Your task to perform on an android device: Open Chrome and go to settings Image 0: 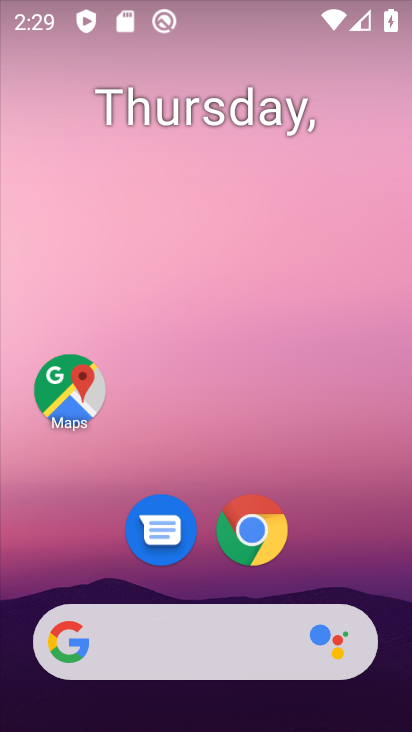
Step 0: press home button
Your task to perform on an android device: Open Chrome and go to settings Image 1: 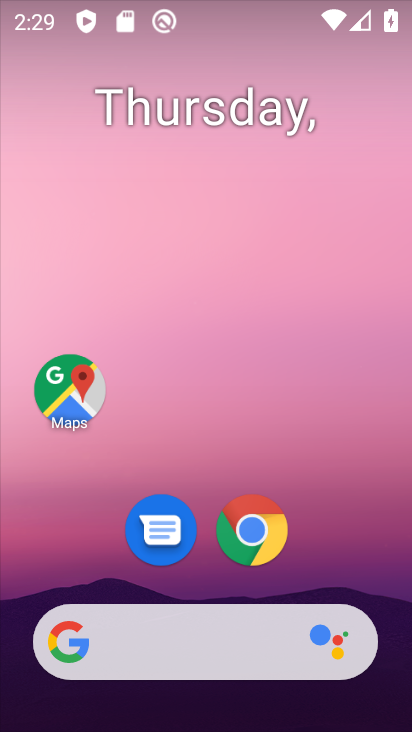
Step 1: click (262, 537)
Your task to perform on an android device: Open Chrome and go to settings Image 2: 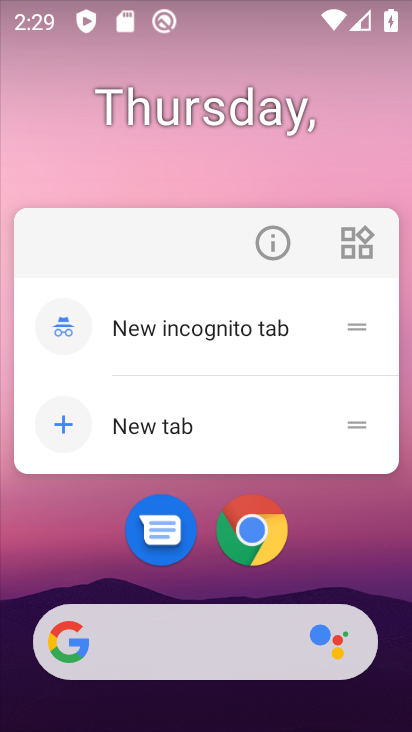
Step 2: click (262, 537)
Your task to perform on an android device: Open Chrome and go to settings Image 3: 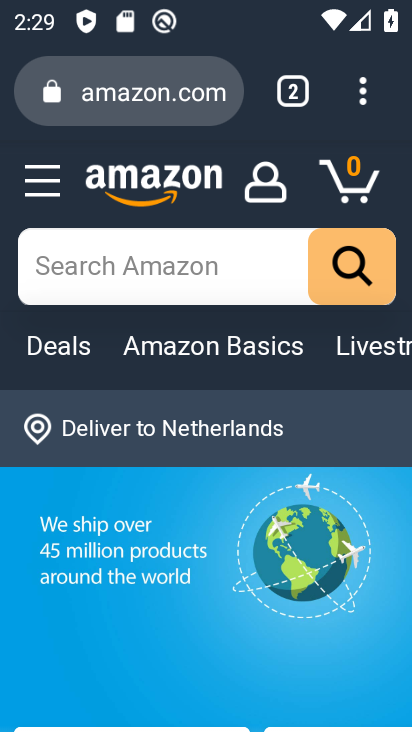
Step 3: click (362, 98)
Your task to perform on an android device: Open Chrome and go to settings Image 4: 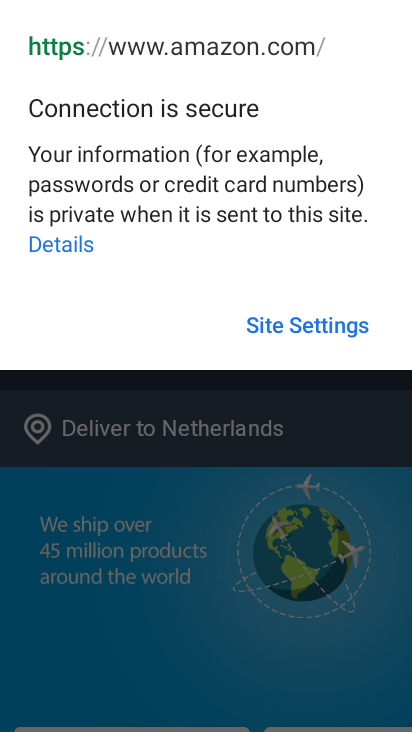
Step 4: drag from (131, 621) to (163, 373)
Your task to perform on an android device: Open Chrome and go to settings Image 5: 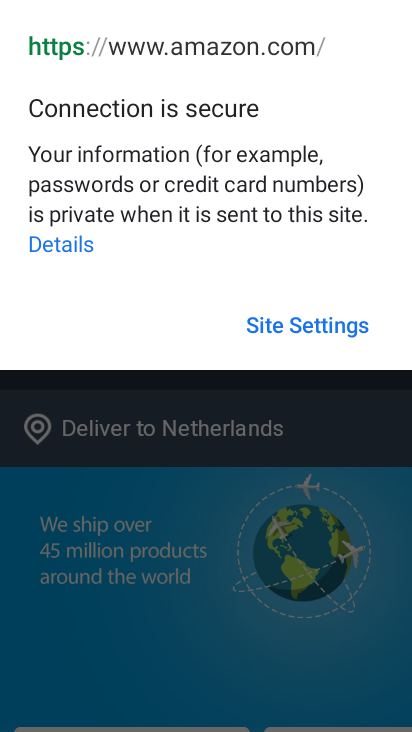
Step 5: click (303, 455)
Your task to perform on an android device: Open Chrome and go to settings Image 6: 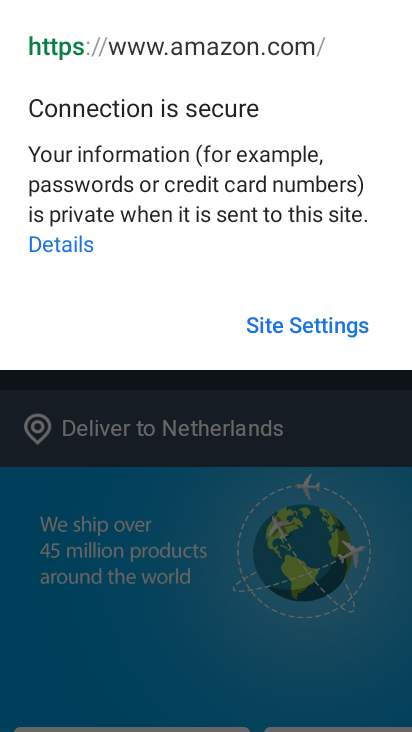
Step 6: task complete